Your task to perform on an android device: delete the emails in spam in the gmail app Image 0: 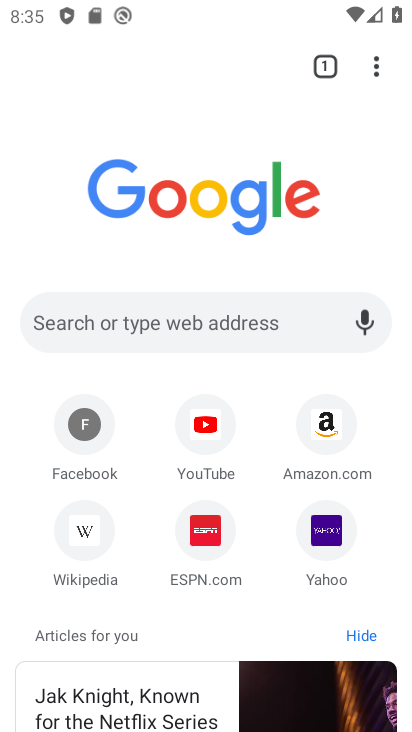
Step 0: press home button
Your task to perform on an android device: delete the emails in spam in the gmail app Image 1: 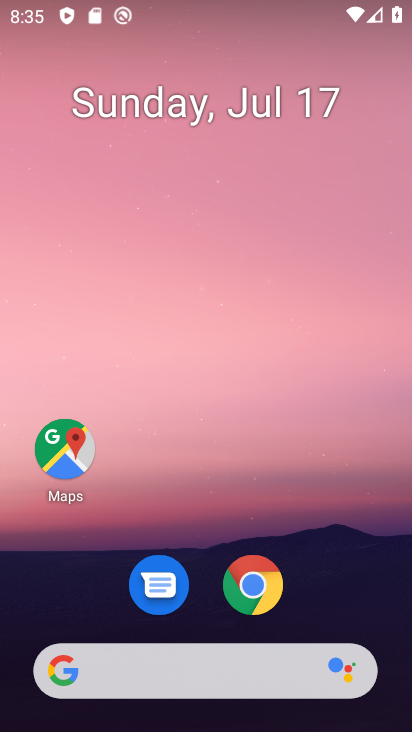
Step 1: drag from (195, 664) to (348, 88)
Your task to perform on an android device: delete the emails in spam in the gmail app Image 2: 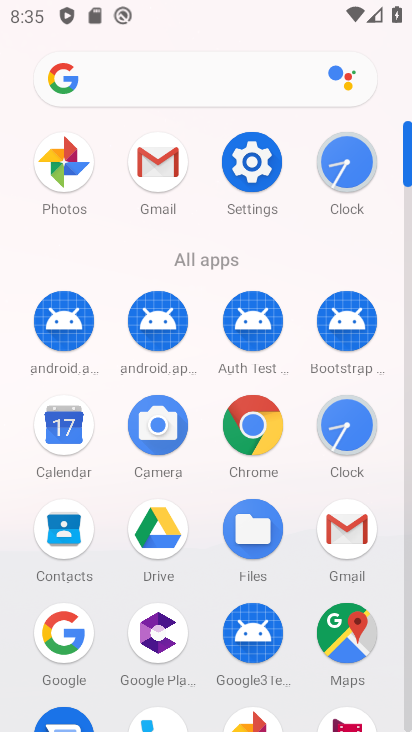
Step 2: click (163, 170)
Your task to perform on an android device: delete the emails in spam in the gmail app Image 3: 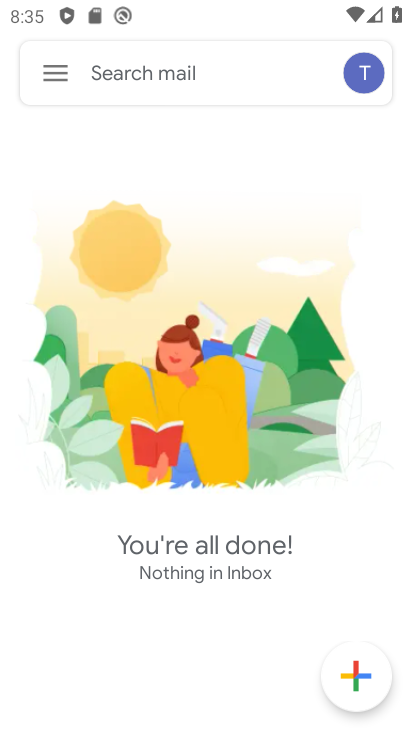
Step 3: click (52, 73)
Your task to perform on an android device: delete the emails in spam in the gmail app Image 4: 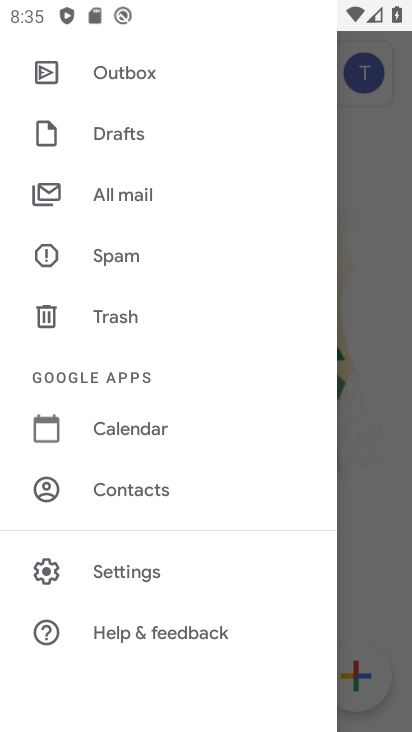
Step 4: click (130, 252)
Your task to perform on an android device: delete the emails in spam in the gmail app Image 5: 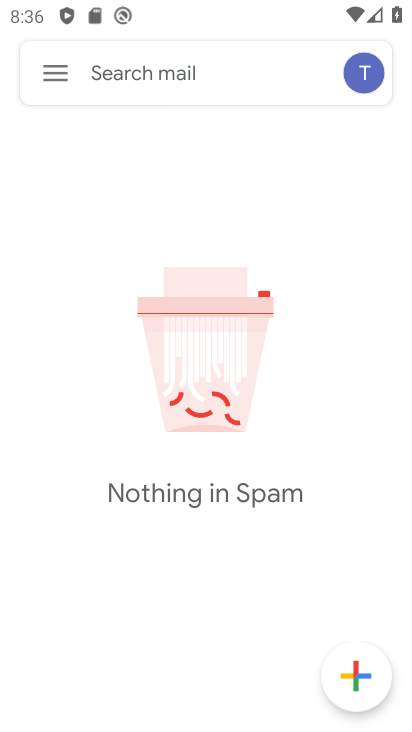
Step 5: task complete